Your task to perform on an android device: turn on sleep mode Image 0: 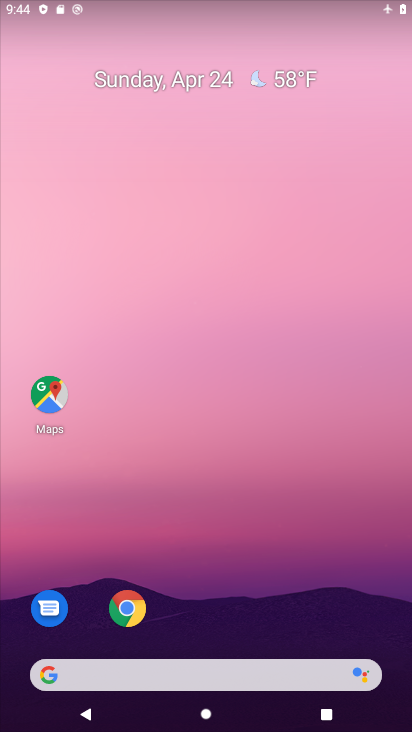
Step 0: drag from (235, 360) to (173, 17)
Your task to perform on an android device: turn on sleep mode Image 1: 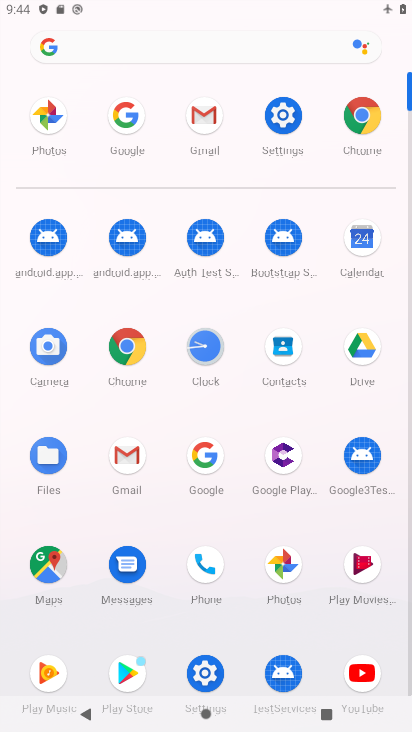
Step 1: click (274, 127)
Your task to perform on an android device: turn on sleep mode Image 2: 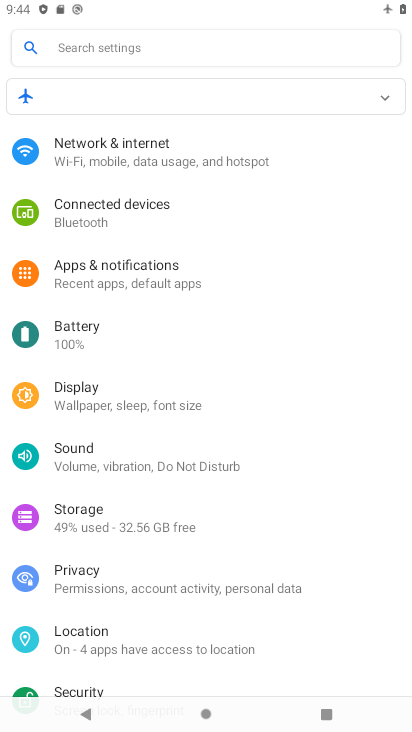
Step 2: click (95, 401)
Your task to perform on an android device: turn on sleep mode Image 3: 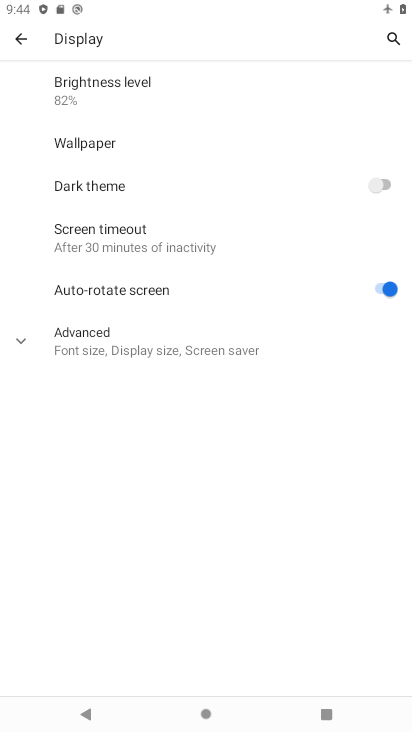
Step 3: click (98, 233)
Your task to perform on an android device: turn on sleep mode Image 4: 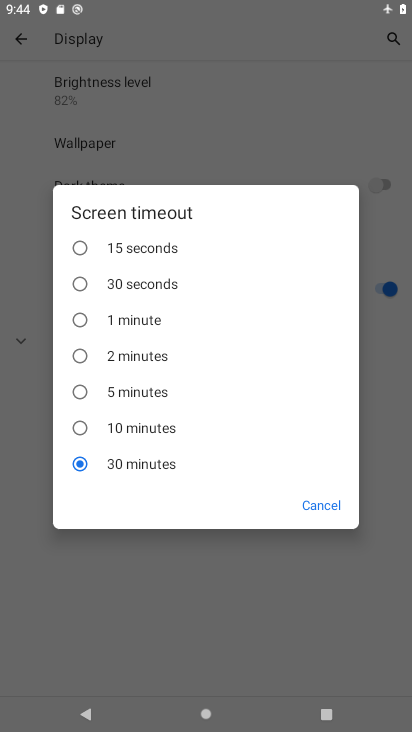
Step 4: task complete